Your task to perform on an android device: add a contact Image 0: 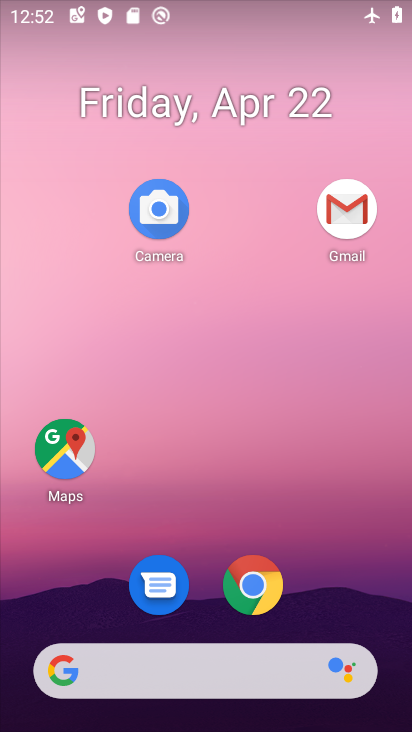
Step 0: drag from (310, 529) to (268, 109)
Your task to perform on an android device: add a contact Image 1: 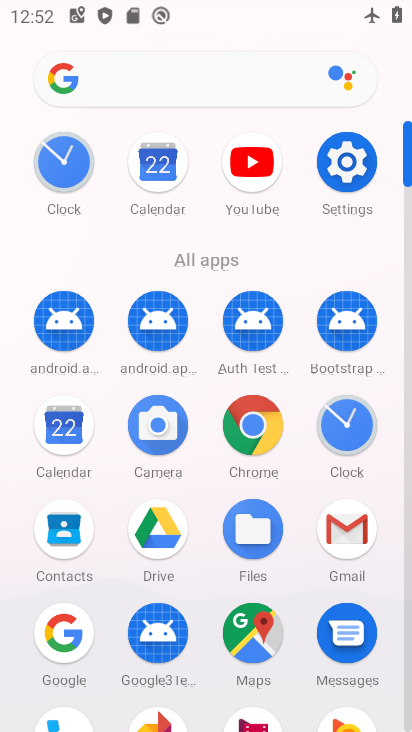
Step 1: click (72, 532)
Your task to perform on an android device: add a contact Image 2: 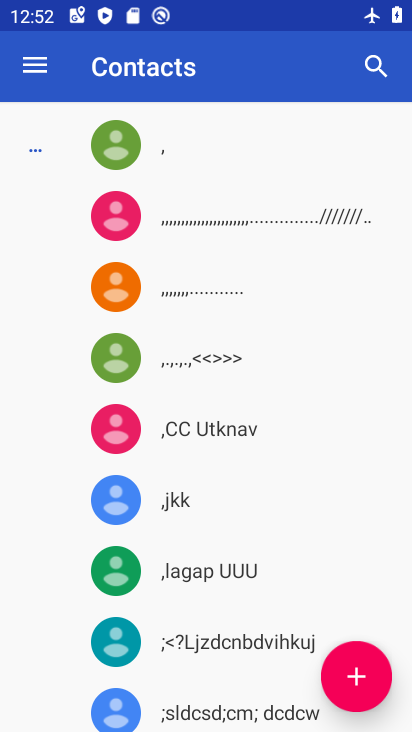
Step 2: click (350, 673)
Your task to perform on an android device: add a contact Image 3: 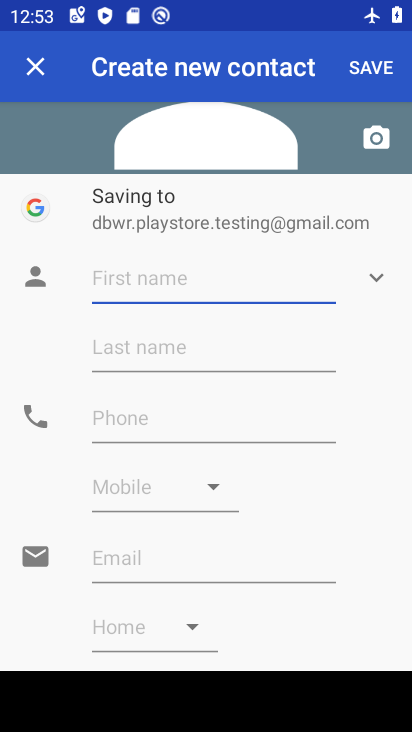
Step 3: type "Chandrashekhar Tiwari"
Your task to perform on an android device: add a contact Image 4: 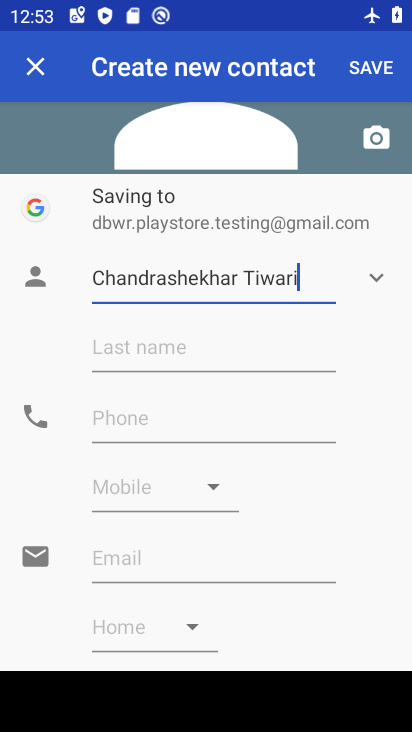
Step 4: click (274, 431)
Your task to perform on an android device: add a contact Image 5: 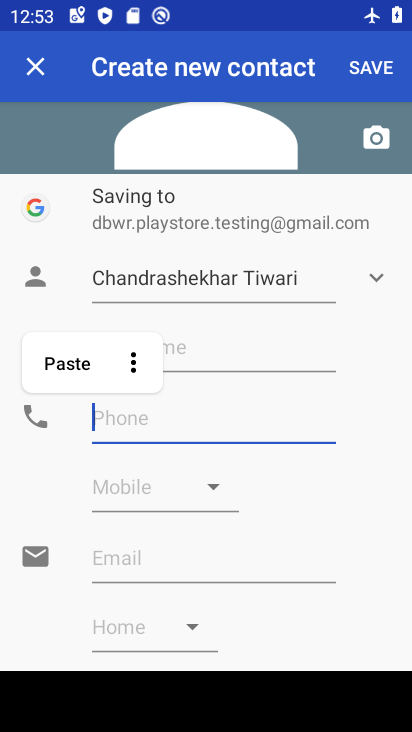
Step 5: type "919988776655"
Your task to perform on an android device: add a contact Image 6: 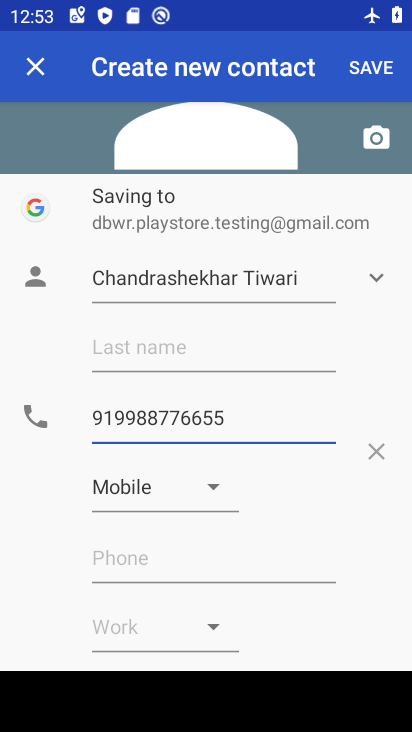
Step 6: click (377, 67)
Your task to perform on an android device: add a contact Image 7: 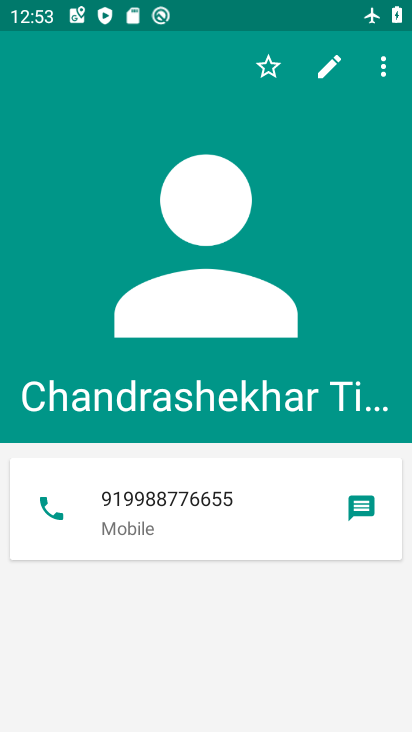
Step 7: task complete